Your task to perform on an android device: toggle show notifications on the lock screen Image 0: 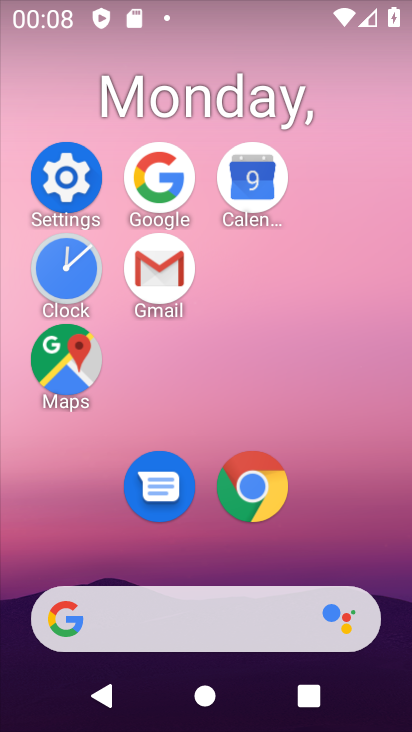
Step 0: click (77, 190)
Your task to perform on an android device: toggle show notifications on the lock screen Image 1: 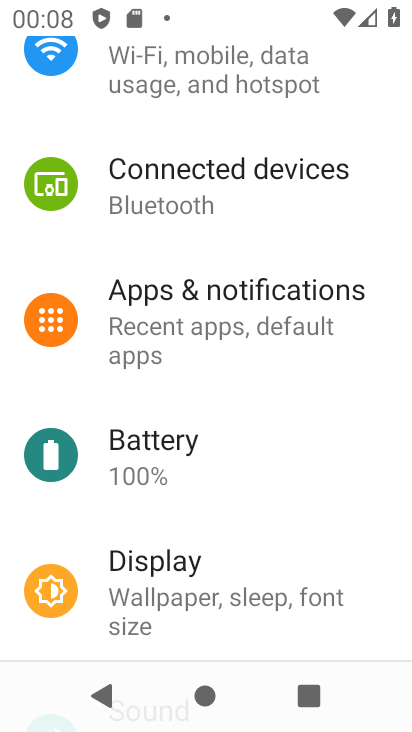
Step 1: click (255, 320)
Your task to perform on an android device: toggle show notifications on the lock screen Image 2: 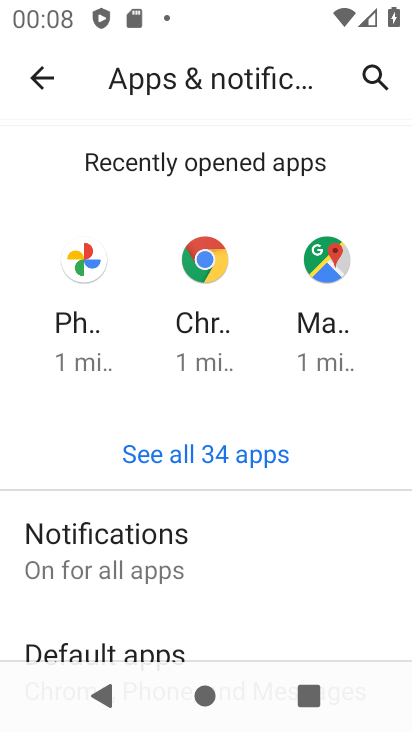
Step 2: click (200, 519)
Your task to perform on an android device: toggle show notifications on the lock screen Image 3: 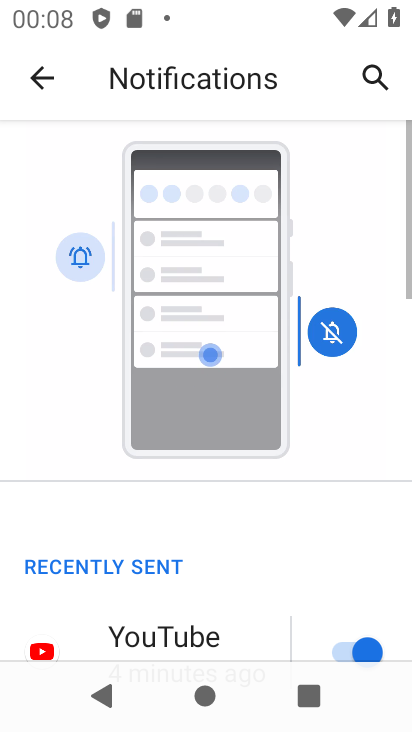
Step 3: drag from (232, 595) to (263, 220)
Your task to perform on an android device: toggle show notifications on the lock screen Image 4: 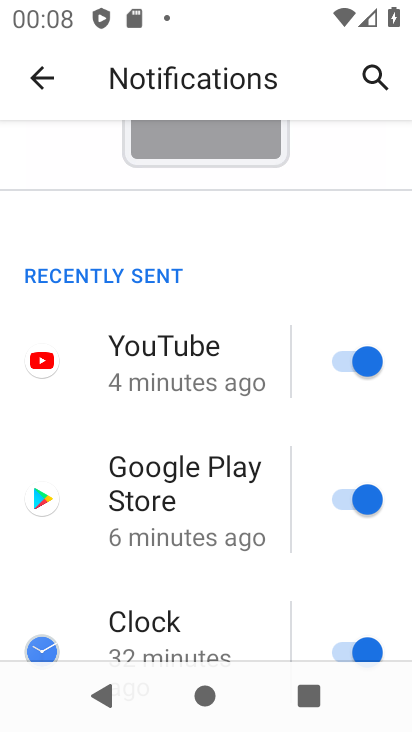
Step 4: drag from (204, 553) to (210, 200)
Your task to perform on an android device: toggle show notifications on the lock screen Image 5: 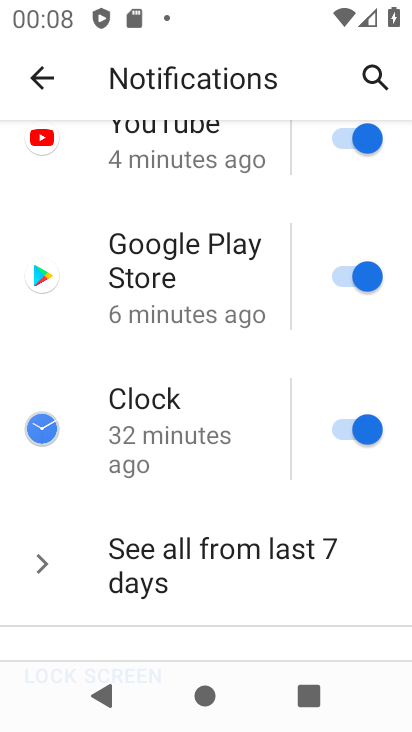
Step 5: drag from (209, 602) to (204, 205)
Your task to perform on an android device: toggle show notifications on the lock screen Image 6: 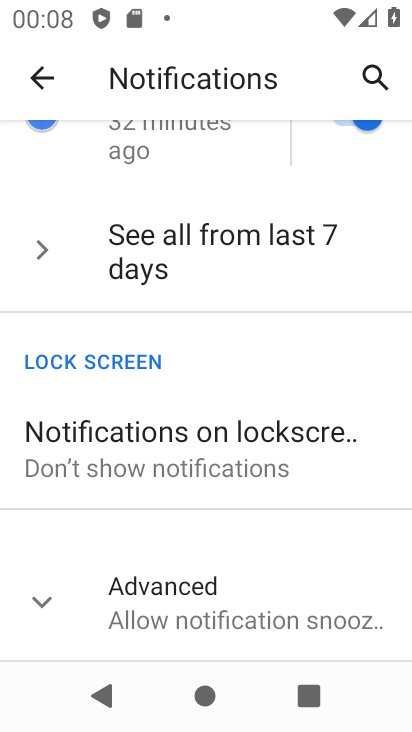
Step 6: click (206, 436)
Your task to perform on an android device: toggle show notifications on the lock screen Image 7: 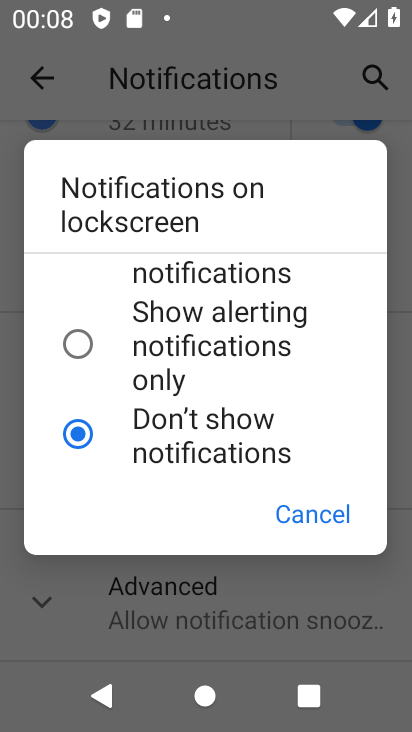
Step 7: click (158, 317)
Your task to perform on an android device: toggle show notifications on the lock screen Image 8: 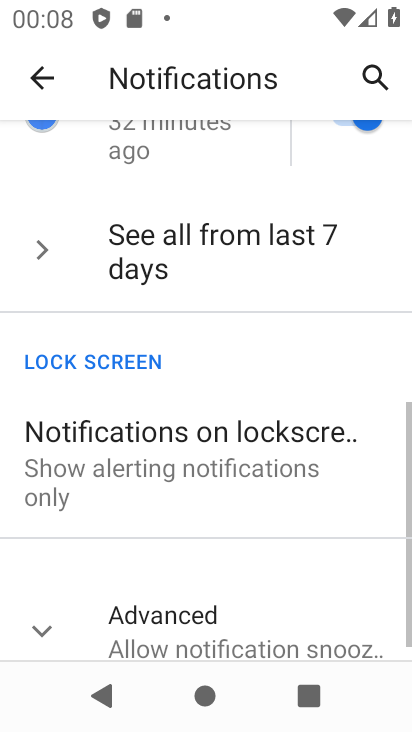
Step 8: task complete